Your task to perform on an android device: Go to Maps Image 0: 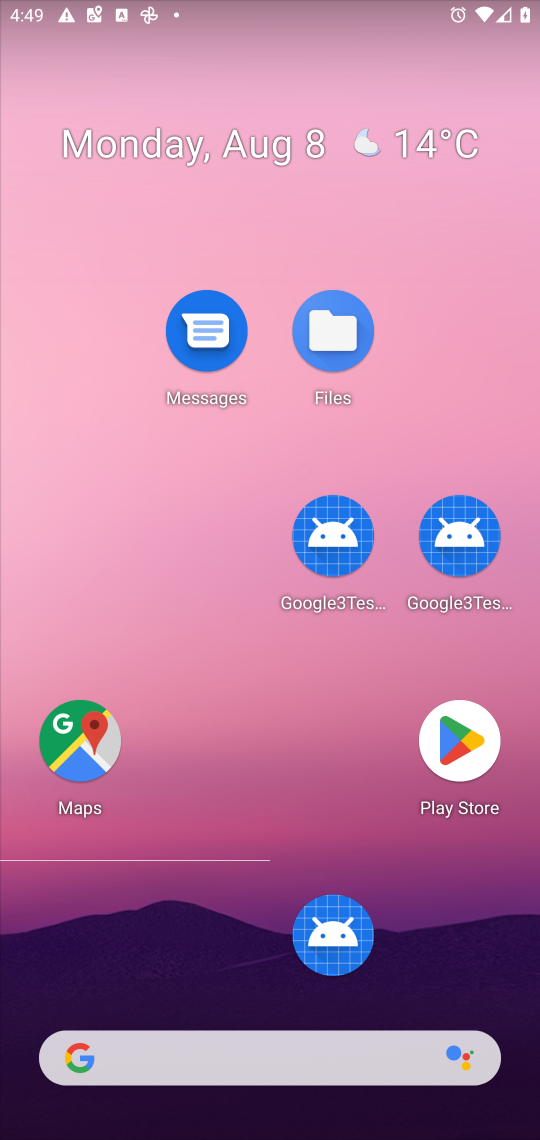
Step 0: drag from (219, 1054) to (268, 386)
Your task to perform on an android device: Go to Maps Image 1: 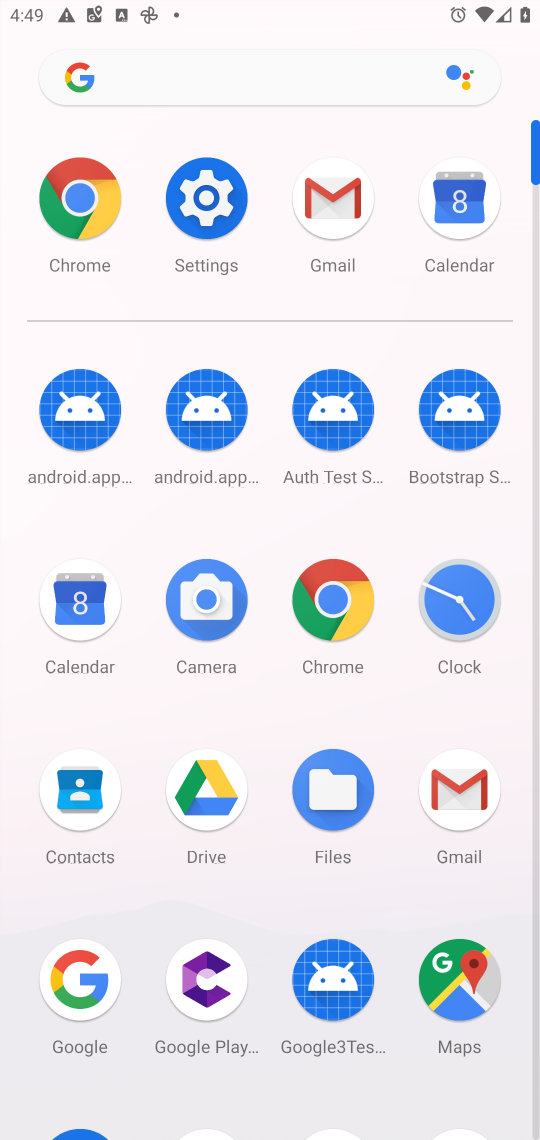
Step 1: click (466, 972)
Your task to perform on an android device: Go to Maps Image 2: 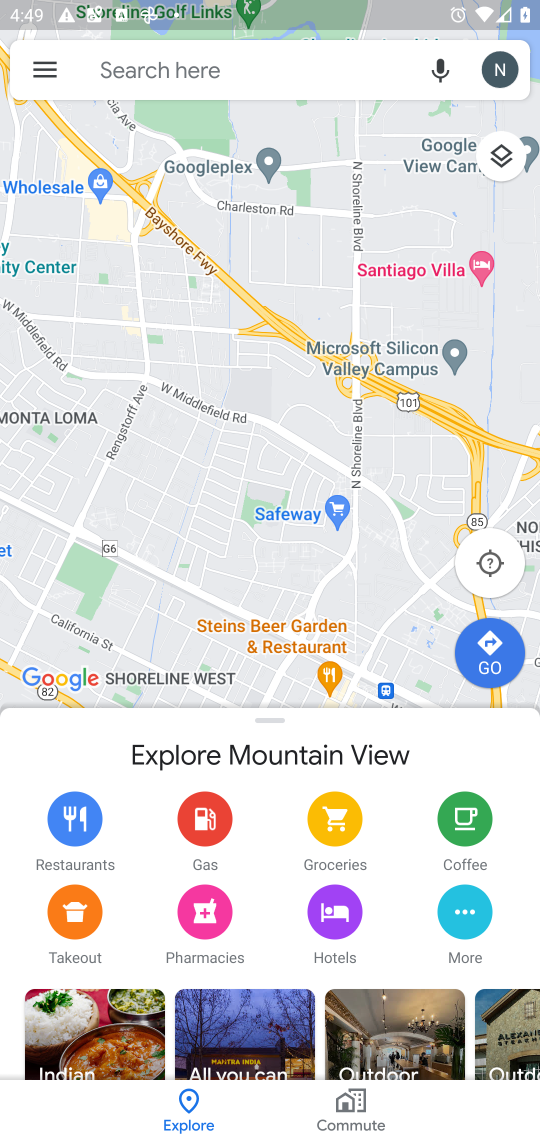
Step 2: task complete